Your task to perform on an android device: Open the Play Movies app and select the watchlist tab. Image 0: 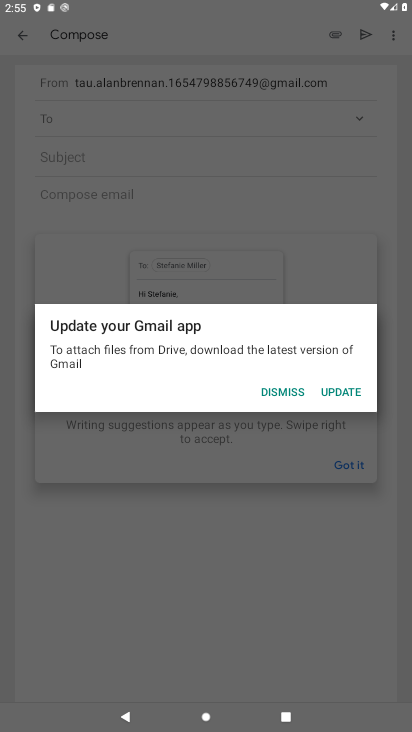
Step 0: press home button
Your task to perform on an android device: Open the Play Movies app and select the watchlist tab. Image 1: 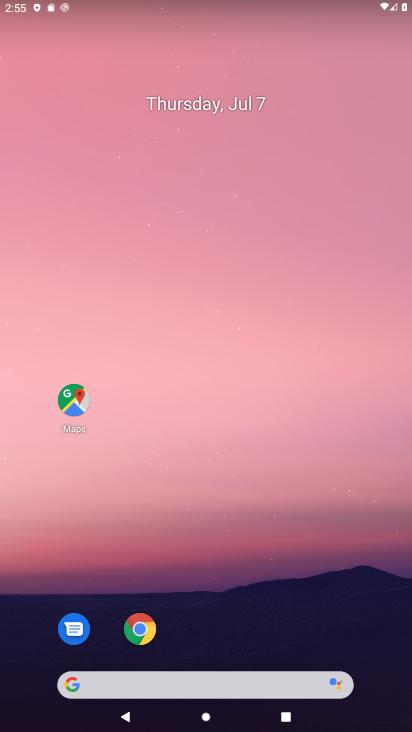
Step 1: drag from (272, 631) to (264, 346)
Your task to perform on an android device: Open the Play Movies app and select the watchlist tab. Image 2: 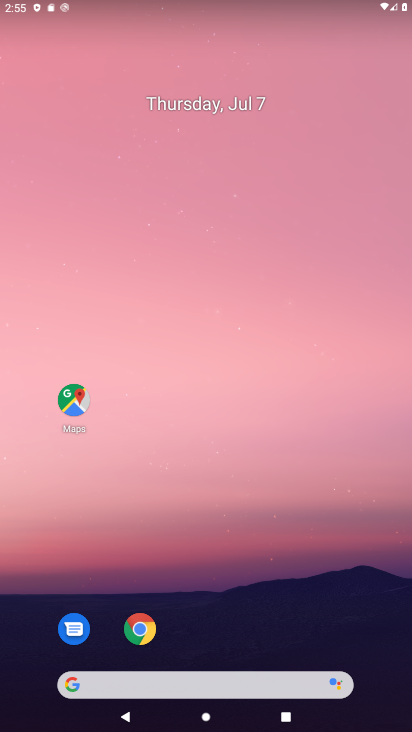
Step 2: drag from (296, 625) to (293, 280)
Your task to perform on an android device: Open the Play Movies app and select the watchlist tab. Image 3: 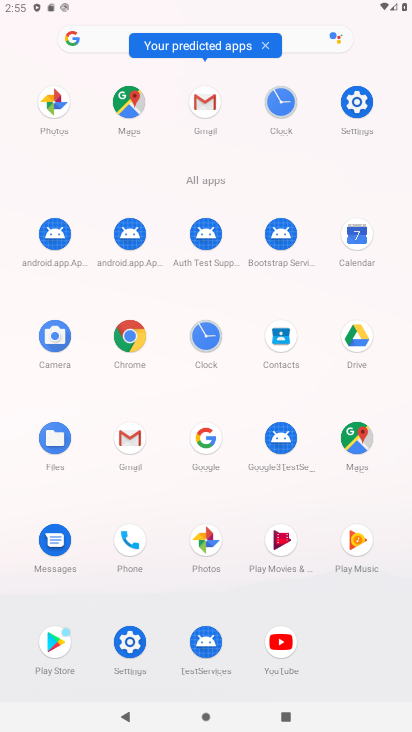
Step 3: click (287, 548)
Your task to perform on an android device: Open the Play Movies app and select the watchlist tab. Image 4: 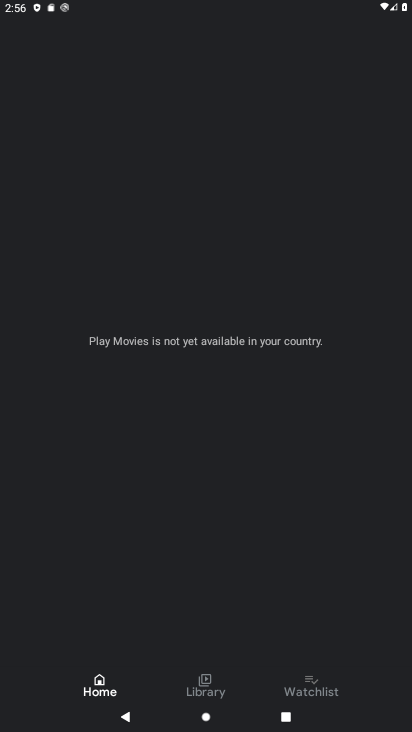
Step 4: click (306, 674)
Your task to perform on an android device: Open the Play Movies app and select the watchlist tab. Image 5: 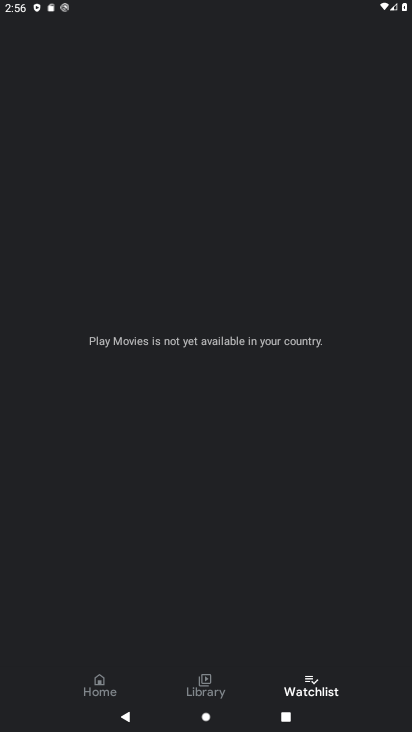
Step 5: task complete